Your task to perform on an android device: turn off wifi Image 0: 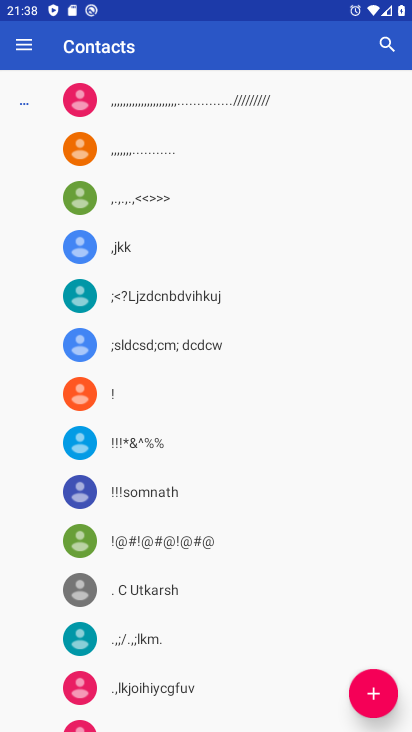
Step 0: press home button
Your task to perform on an android device: turn off wifi Image 1: 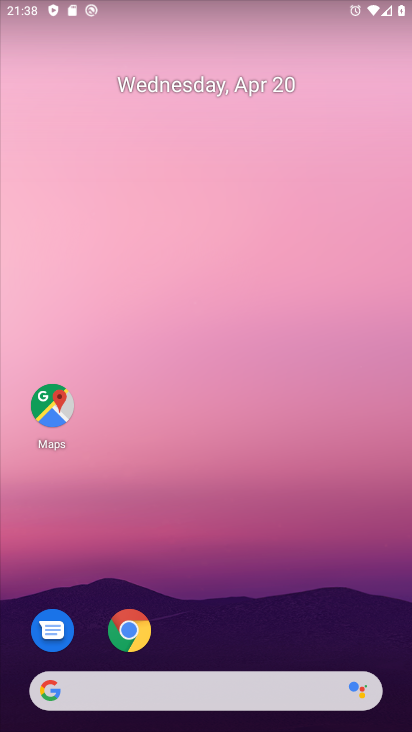
Step 1: drag from (220, 587) to (220, 38)
Your task to perform on an android device: turn off wifi Image 2: 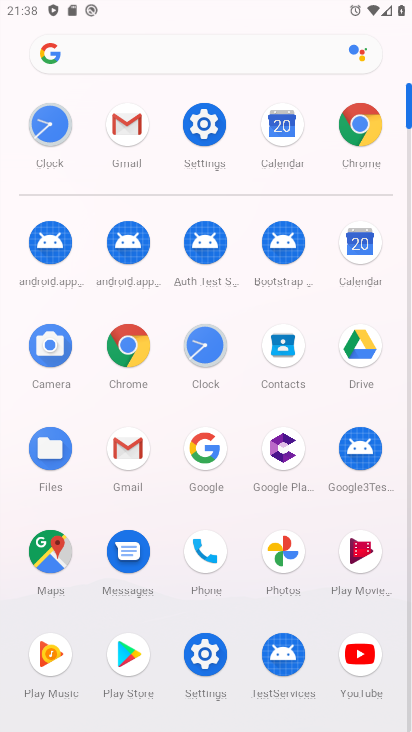
Step 2: click (194, 117)
Your task to perform on an android device: turn off wifi Image 3: 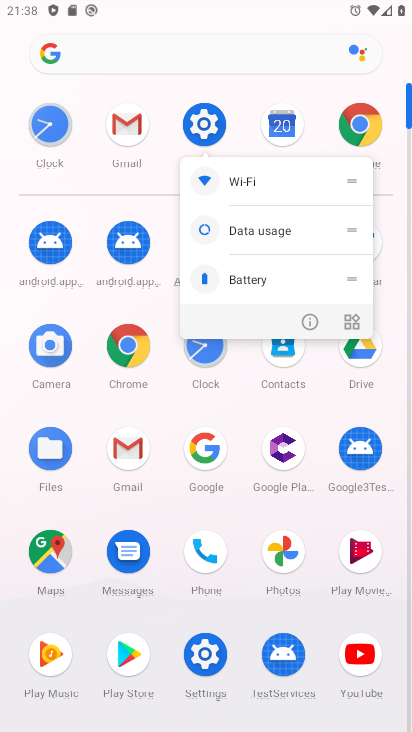
Step 3: click (199, 118)
Your task to perform on an android device: turn off wifi Image 4: 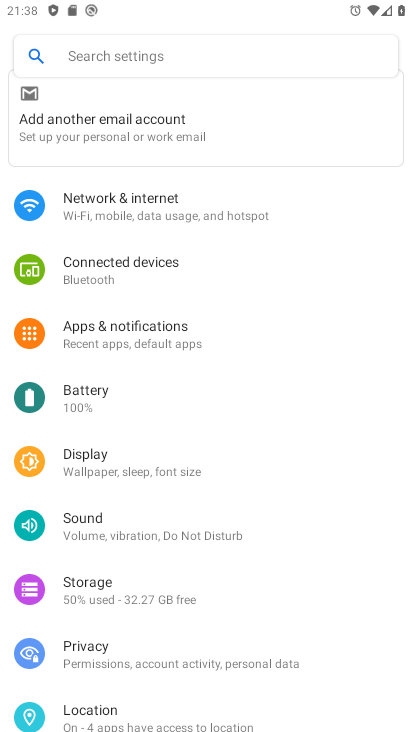
Step 4: click (188, 205)
Your task to perform on an android device: turn off wifi Image 5: 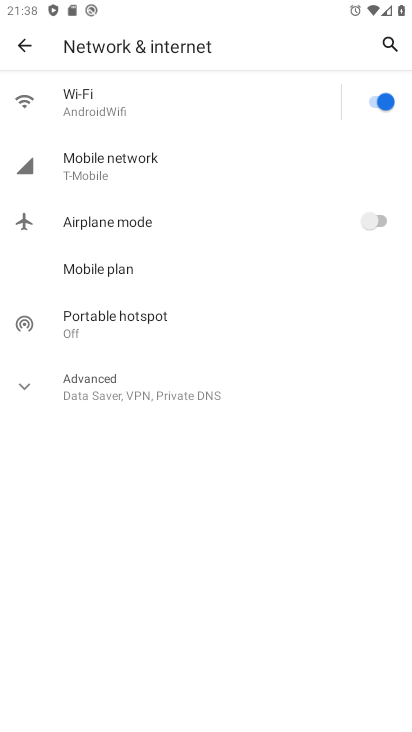
Step 5: click (188, 205)
Your task to perform on an android device: turn off wifi Image 6: 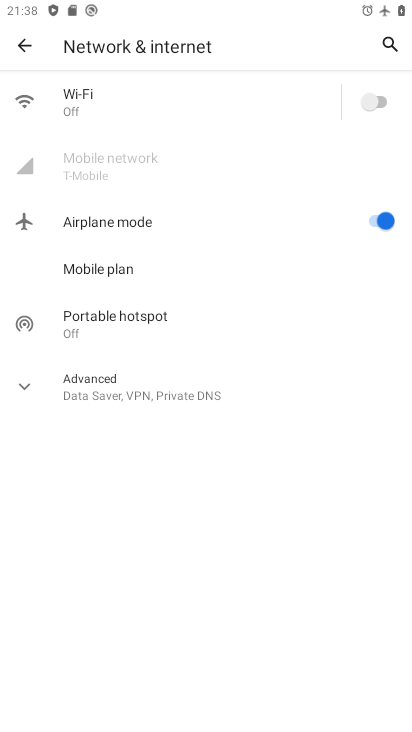
Step 6: click (372, 223)
Your task to perform on an android device: turn off wifi Image 7: 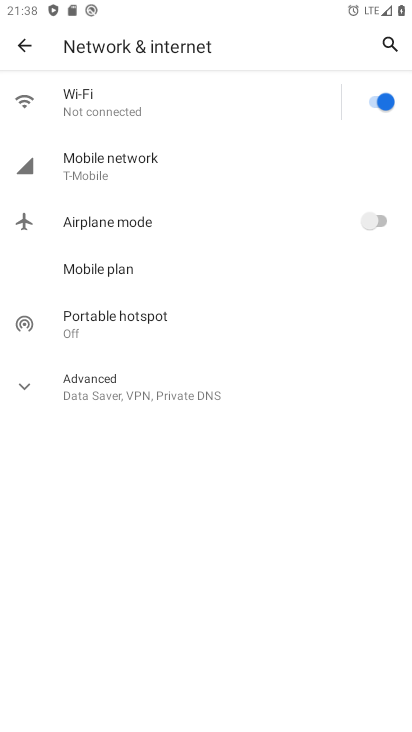
Step 7: click (374, 100)
Your task to perform on an android device: turn off wifi Image 8: 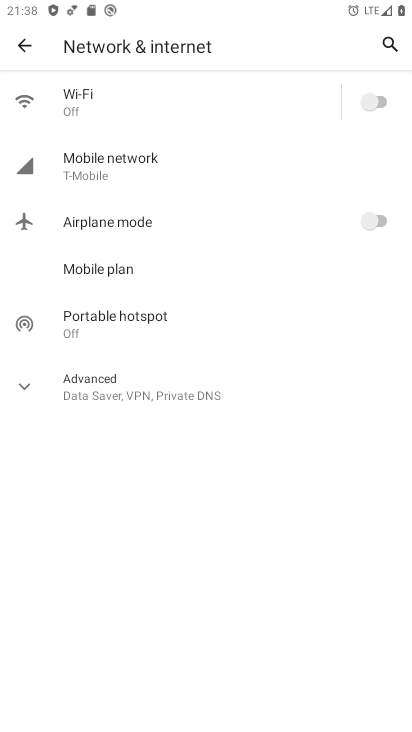
Step 8: task complete